Your task to perform on an android device: add a contact in the contacts app Image 0: 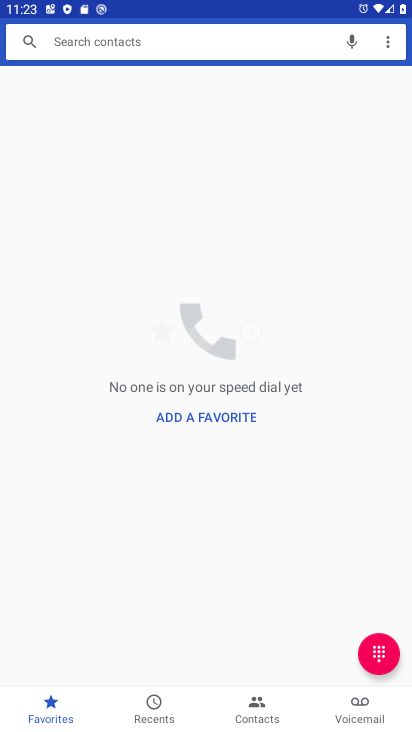
Step 0: press home button
Your task to perform on an android device: add a contact in the contacts app Image 1: 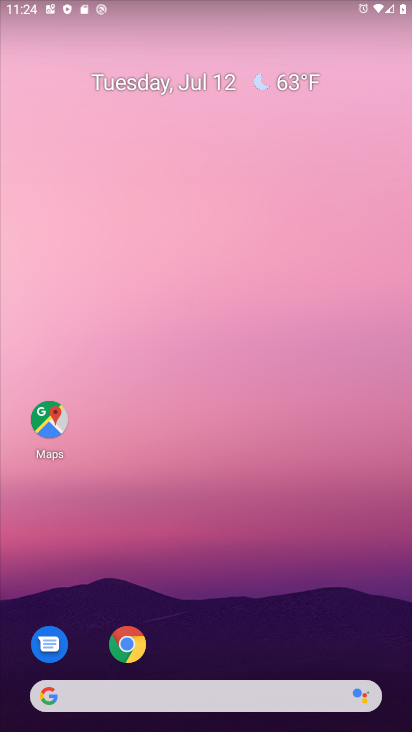
Step 1: drag from (207, 699) to (209, 245)
Your task to perform on an android device: add a contact in the contacts app Image 2: 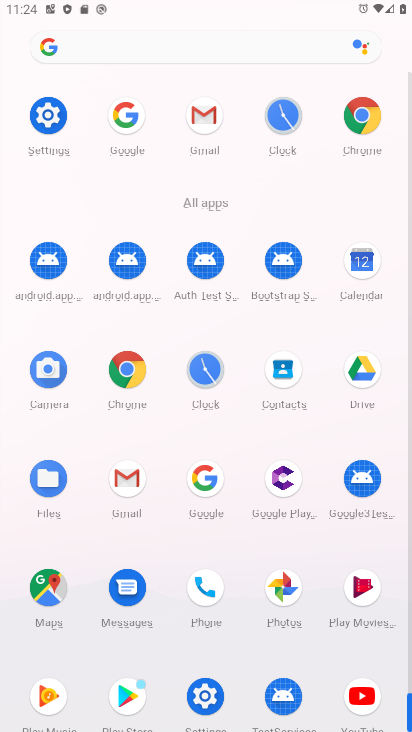
Step 2: click (285, 370)
Your task to perform on an android device: add a contact in the contacts app Image 3: 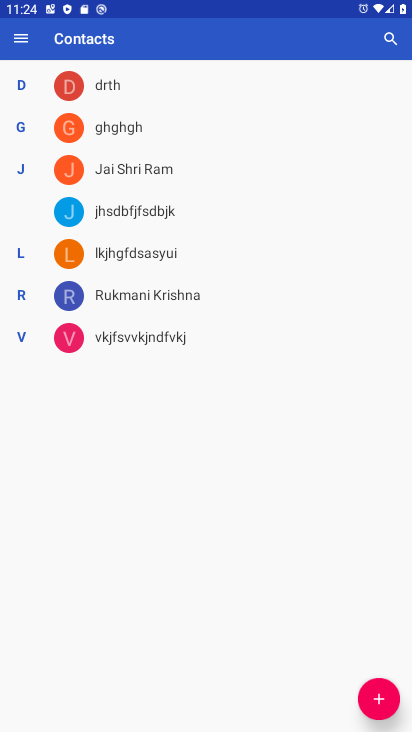
Step 3: click (379, 700)
Your task to perform on an android device: add a contact in the contacts app Image 4: 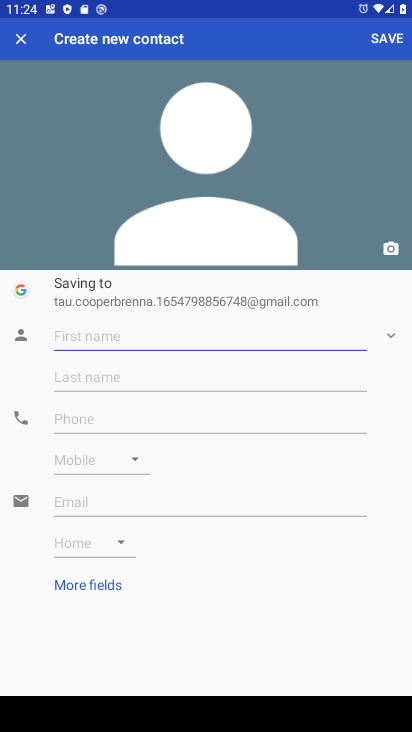
Step 4: click (211, 337)
Your task to perform on an android device: add a contact in the contacts app Image 5: 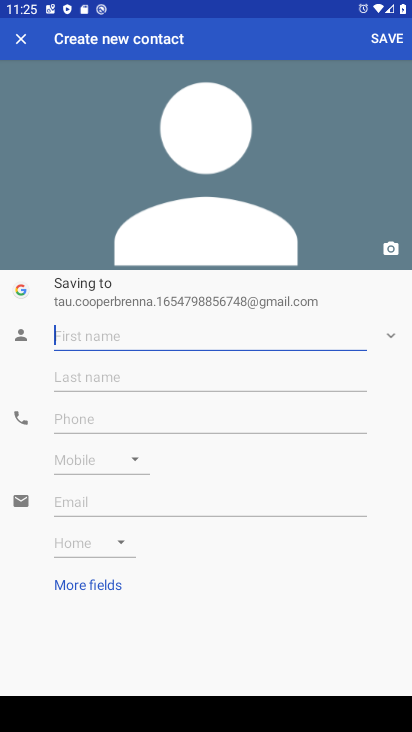
Step 5: type "Aditya "
Your task to perform on an android device: add a contact in the contacts app Image 6: 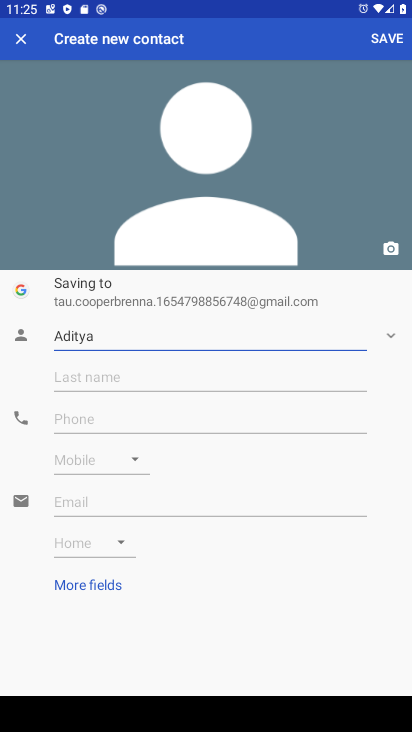
Step 6: click (175, 378)
Your task to perform on an android device: add a contact in the contacts app Image 7: 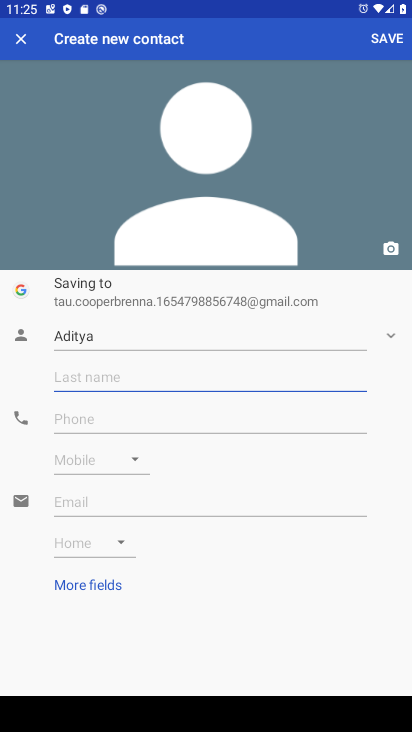
Step 7: type "Narayan"
Your task to perform on an android device: add a contact in the contacts app Image 8: 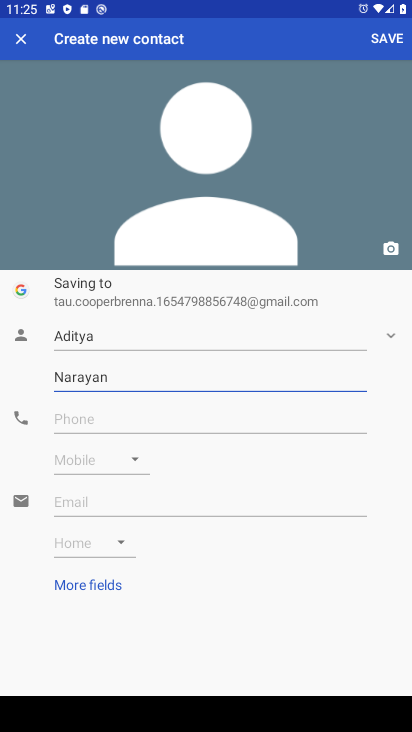
Step 8: click (132, 416)
Your task to perform on an android device: add a contact in the contacts app Image 9: 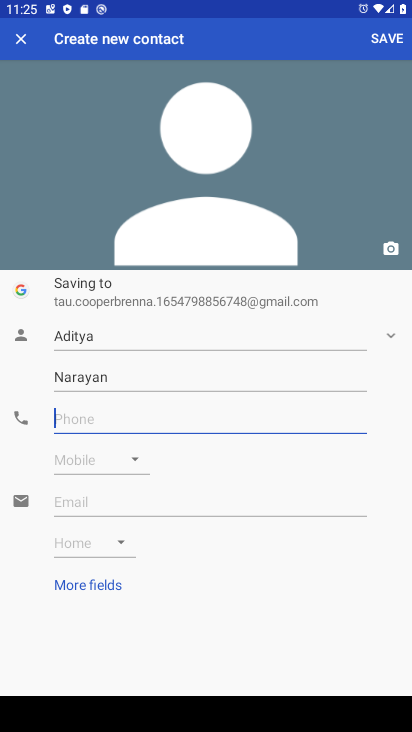
Step 9: type "09988776655"
Your task to perform on an android device: add a contact in the contacts app Image 10: 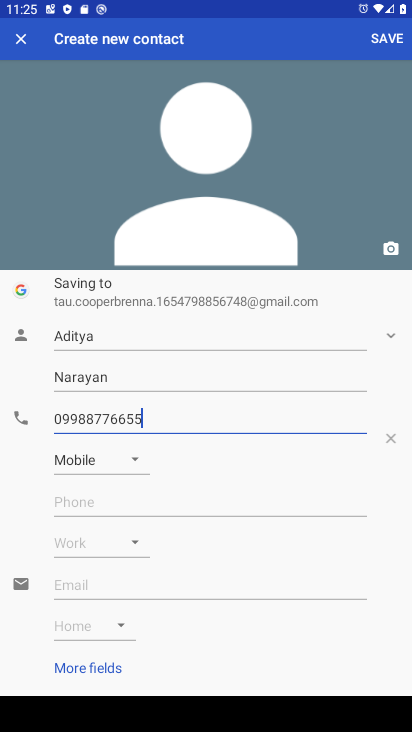
Step 10: type ""
Your task to perform on an android device: add a contact in the contacts app Image 11: 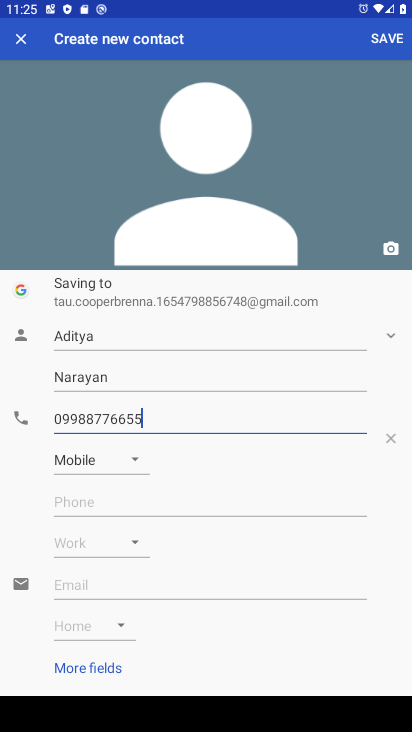
Step 11: click (397, 42)
Your task to perform on an android device: add a contact in the contacts app Image 12: 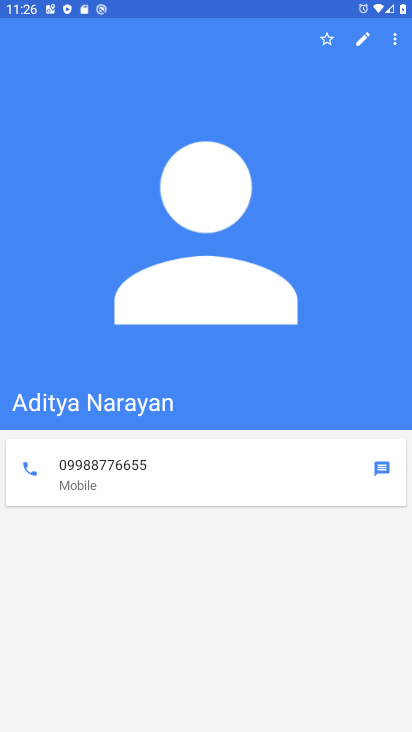
Step 12: task complete